Your task to perform on an android device: Go to notification settings Image 0: 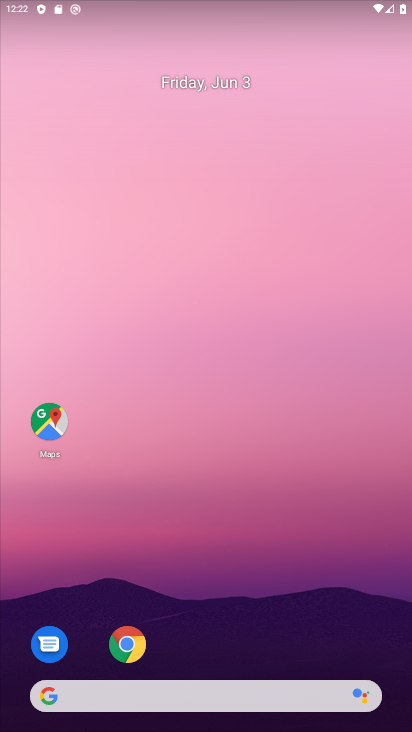
Step 0: drag from (212, 722) to (284, 5)
Your task to perform on an android device: Go to notification settings Image 1: 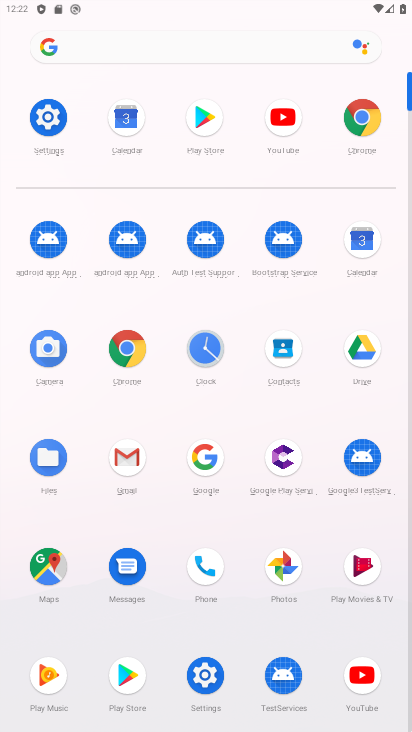
Step 1: click (52, 116)
Your task to perform on an android device: Go to notification settings Image 2: 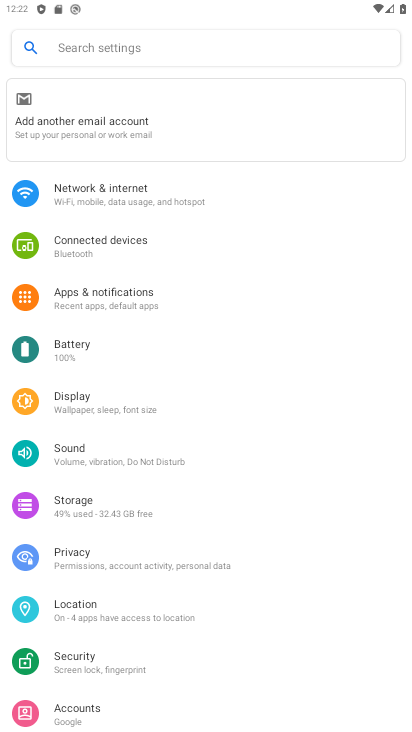
Step 2: click (118, 296)
Your task to perform on an android device: Go to notification settings Image 3: 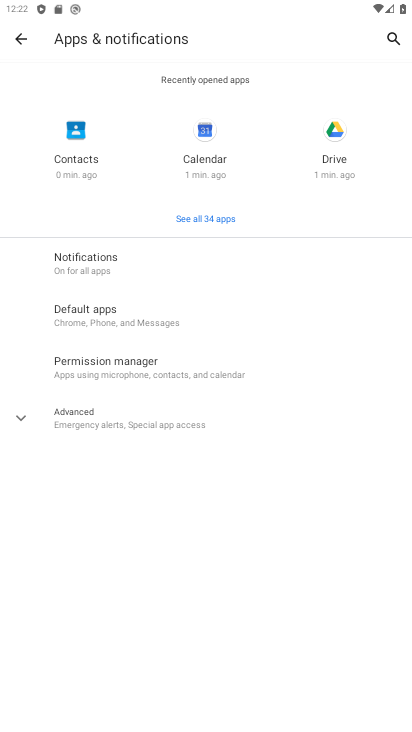
Step 3: click (72, 263)
Your task to perform on an android device: Go to notification settings Image 4: 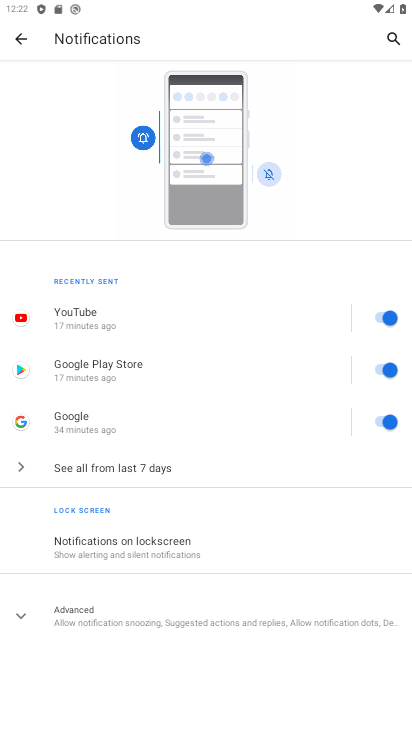
Step 4: task complete